Your task to perform on an android device: toggle notification dots Image 0: 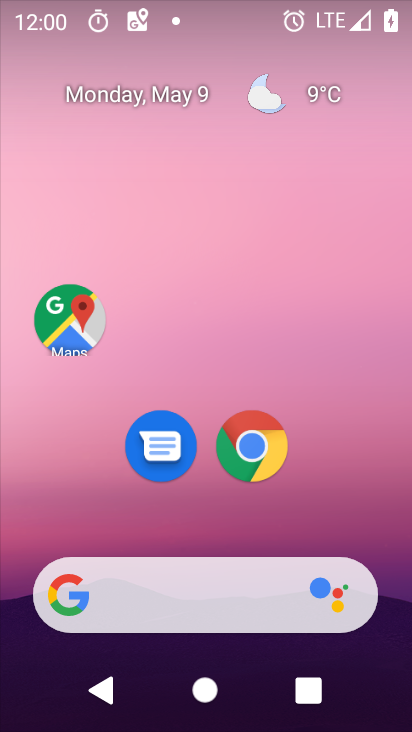
Step 0: drag from (359, 557) to (375, 8)
Your task to perform on an android device: toggle notification dots Image 1: 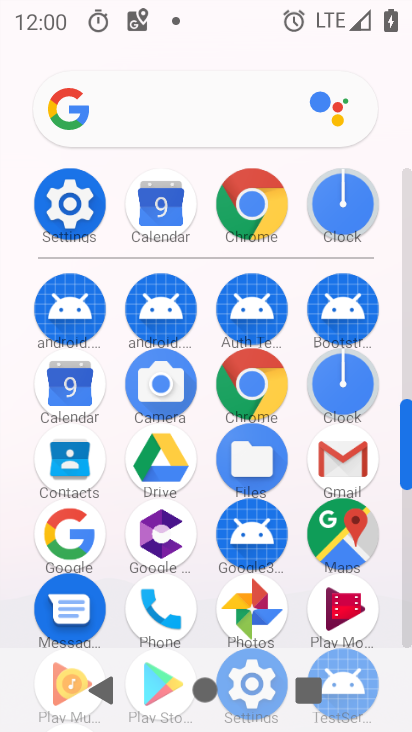
Step 1: click (69, 211)
Your task to perform on an android device: toggle notification dots Image 2: 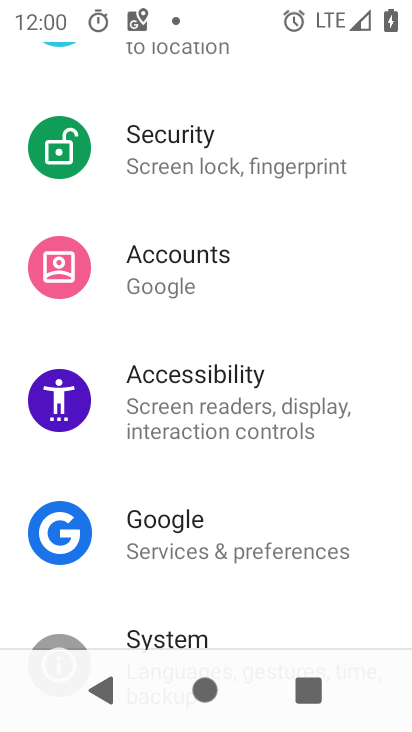
Step 2: drag from (361, 309) to (343, 518)
Your task to perform on an android device: toggle notification dots Image 3: 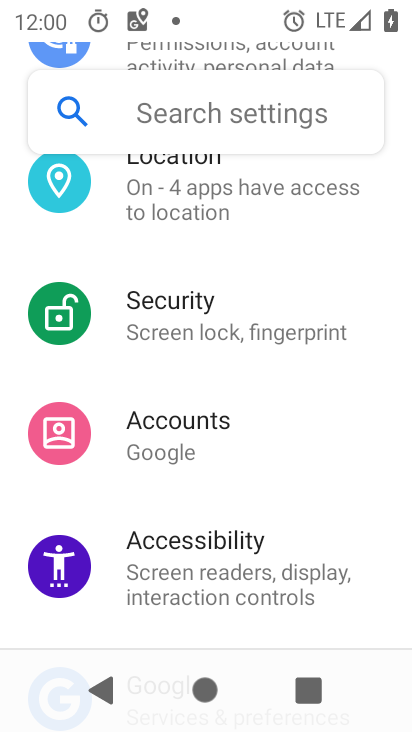
Step 3: drag from (345, 492) to (345, 551)
Your task to perform on an android device: toggle notification dots Image 4: 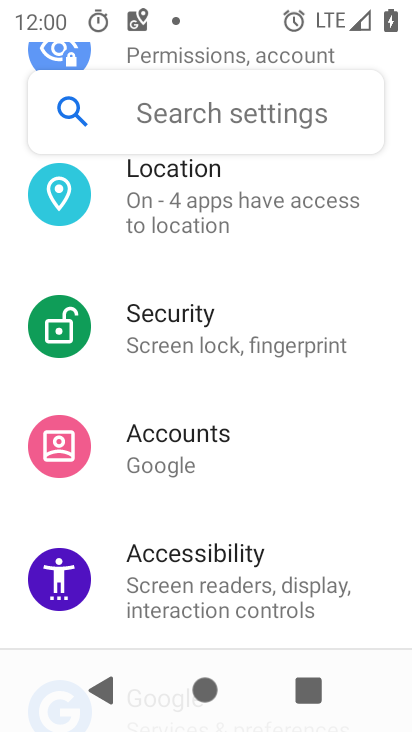
Step 4: drag from (370, 294) to (373, 575)
Your task to perform on an android device: toggle notification dots Image 5: 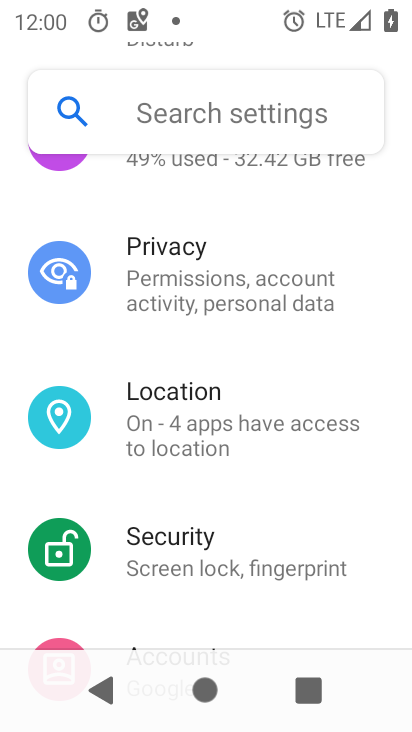
Step 5: drag from (381, 271) to (381, 574)
Your task to perform on an android device: toggle notification dots Image 6: 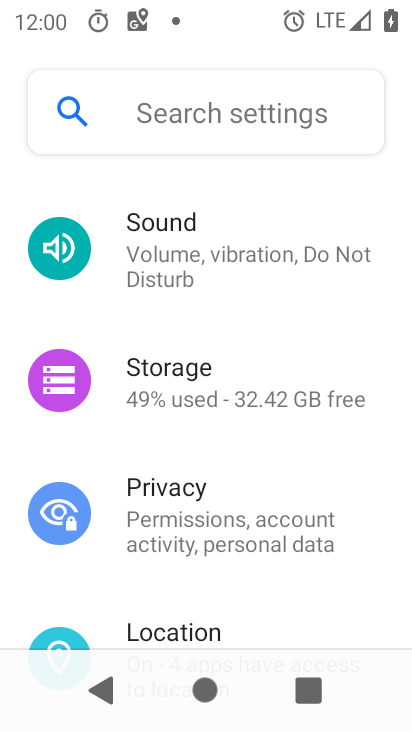
Step 6: drag from (346, 353) to (386, 606)
Your task to perform on an android device: toggle notification dots Image 7: 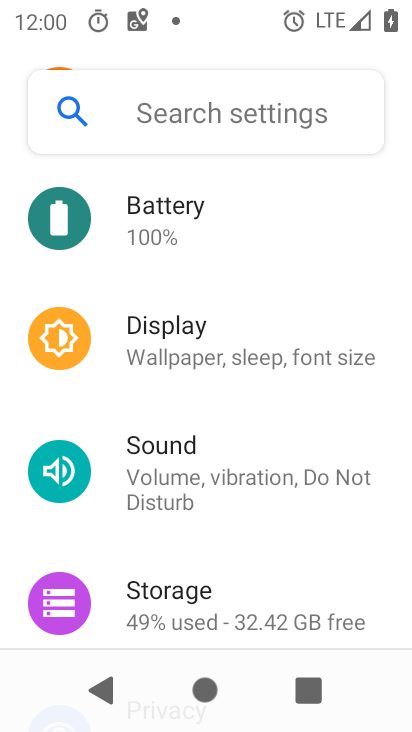
Step 7: drag from (332, 268) to (367, 549)
Your task to perform on an android device: toggle notification dots Image 8: 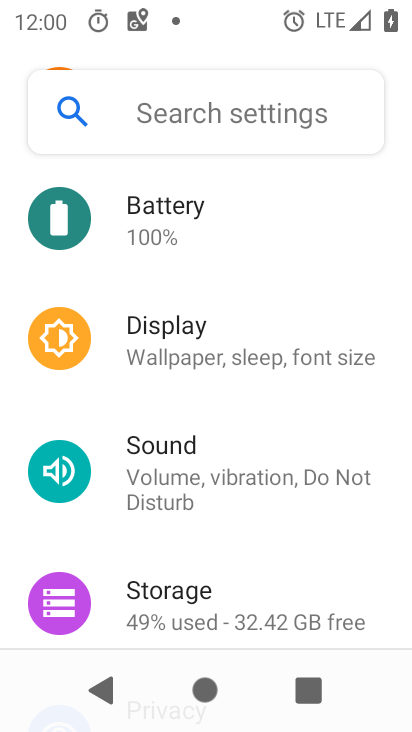
Step 8: drag from (354, 266) to (382, 522)
Your task to perform on an android device: toggle notification dots Image 9: 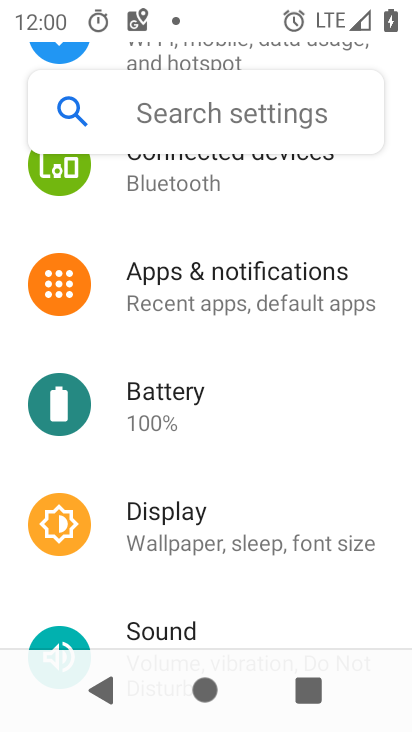
Step 9: click (232, 300)
Your task to perform on an android device: toggle notification dots Image 10: 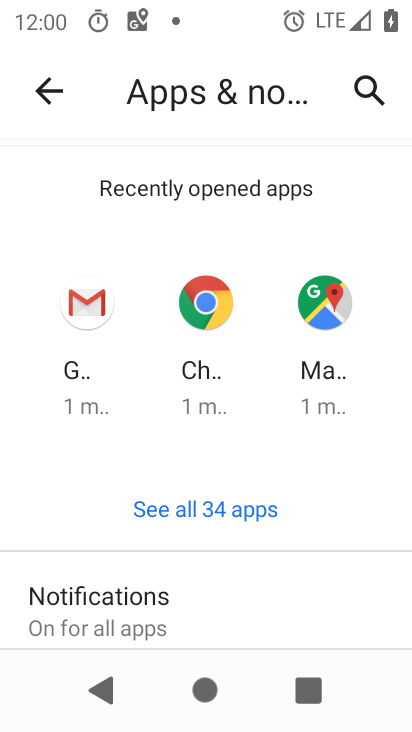
Step 10: drag from (247, 523) to (229, 239)
Your task to perform on an android device: toggle notification dots Image 11: 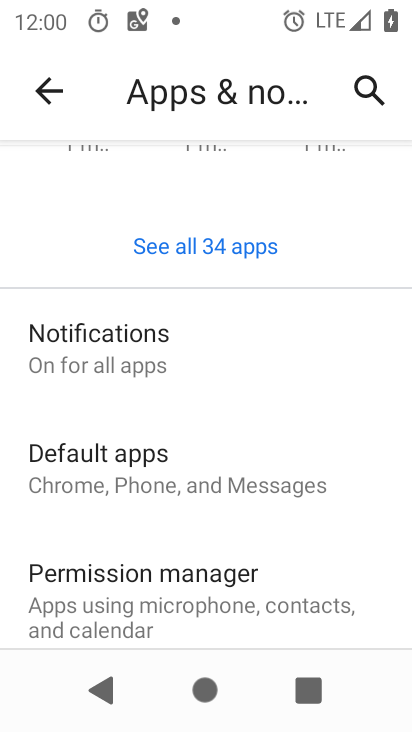
Step 11: click (109, 361)
Your task to perform on an android device: toggle notification dots Image 12: 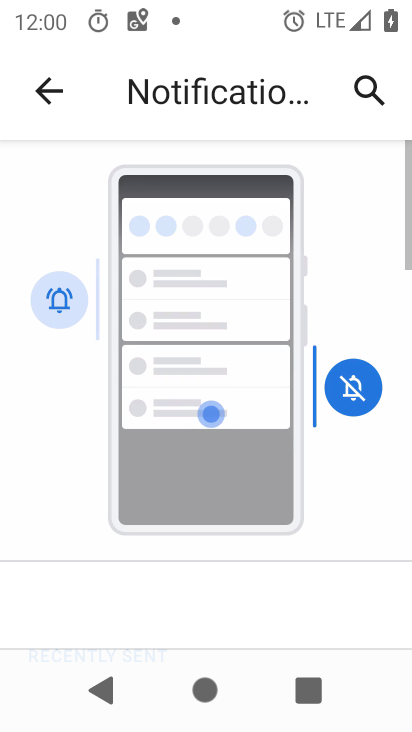
Step 12: drag from (250, 559) to (234, 156)
Your task to perform on an android device: toggle notification dots Image 13: 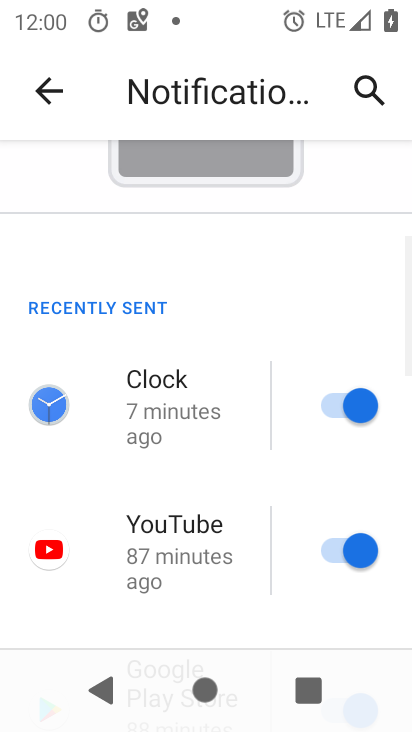
Step 13: drag from (210, 475) to (223, 163)
Your task to perform on an android device: toggle notification dots Image 14: 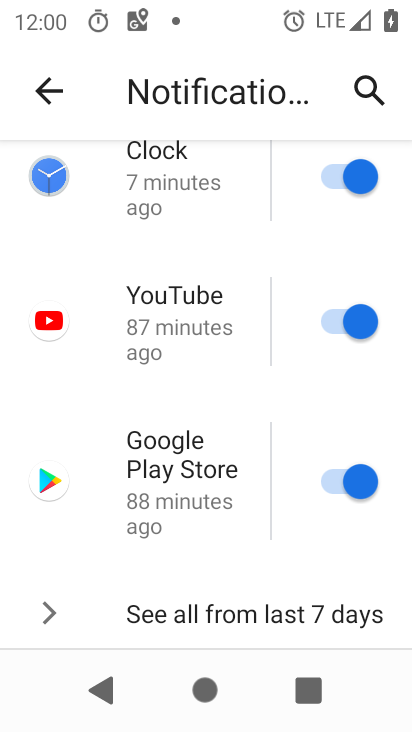
Step 14: drag from (223, 487) to (223, 212)
Your task to perform on an android device: toggle notification dots Image 15: 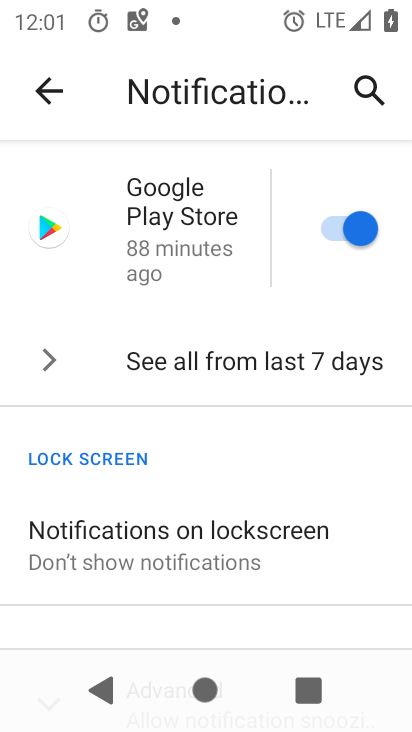
Step 15: drag from (153, 514) to (184, 248)
Your task to perform on an android device: toggle notification dots Image 16: 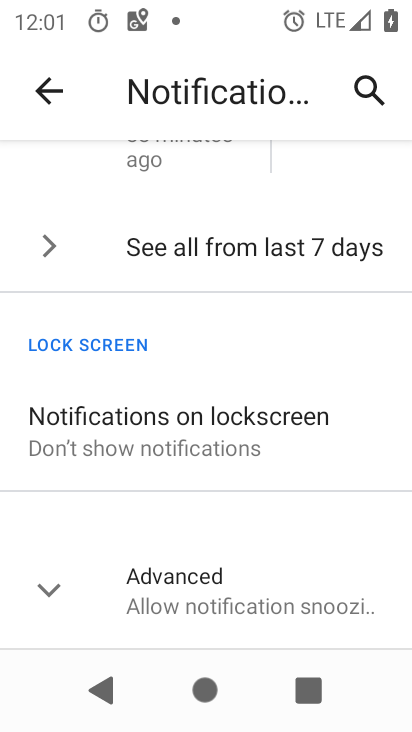
Step 16: click (43, 596)
Your task to perform on an android device: toggle notification dots Image 17: 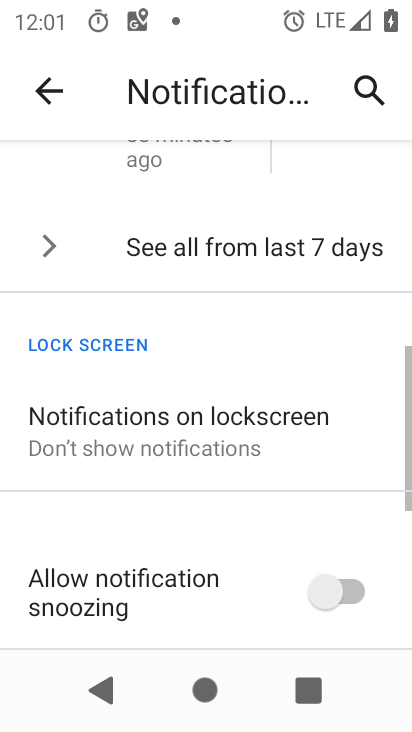
Step 17: drag from (224, 611) to (218, 270)
Your task to perform on an android device: toggle notification dots Image 18: 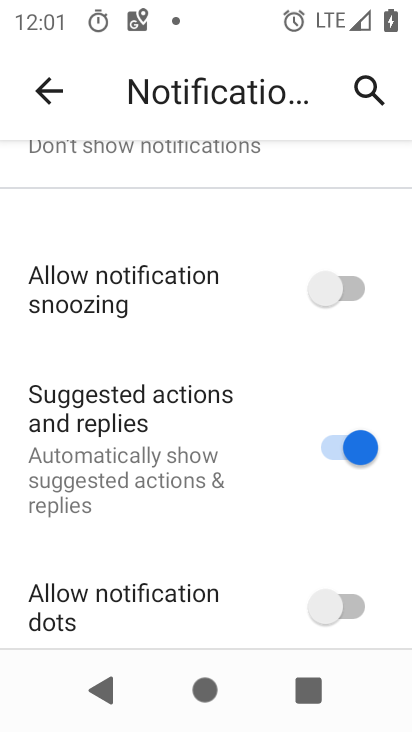
Step 18: drag from (196, 576) to (213, 312)
Your task to perform on an android device: toggle notification dots Image 19: 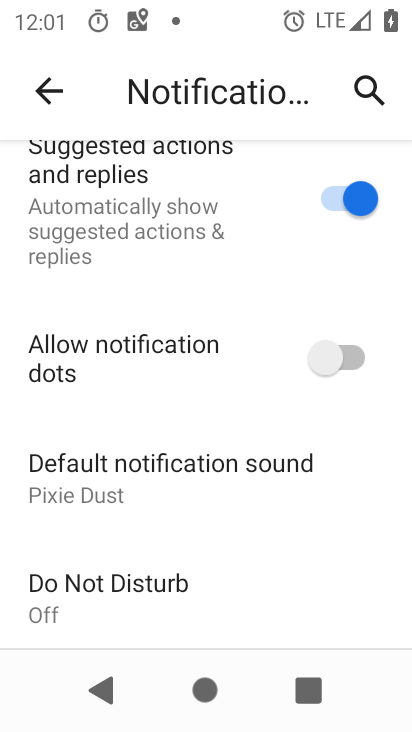
Step 19: click (337, 366)
Your task to perform on an android device: toggle notification dots Image 20: 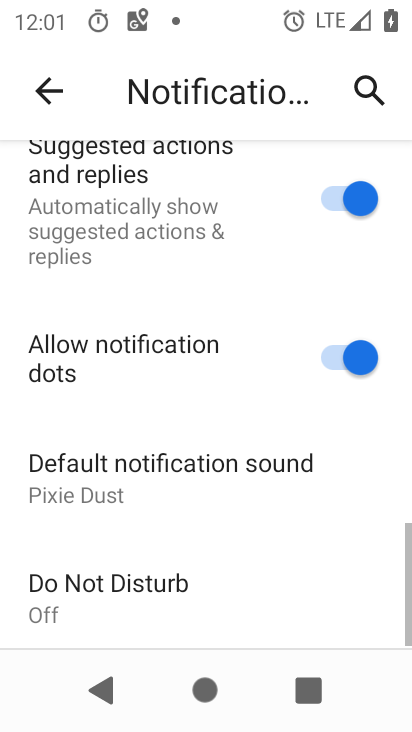
Step 20: task complete